Your task to perform on an android device: set default search engine in the chrome app Image 0: 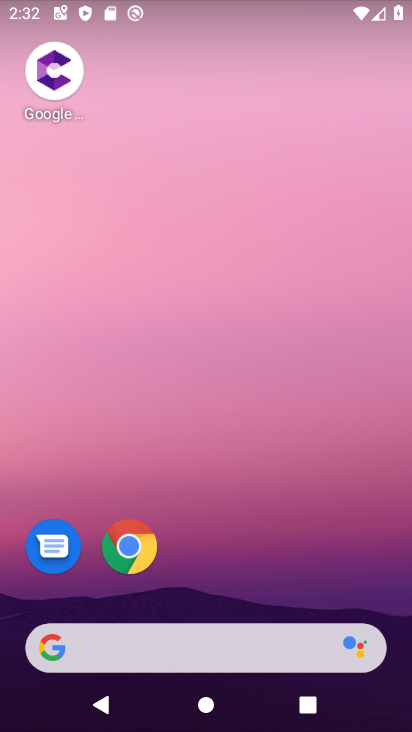
Step 0: click (129, 547)
Your task to perform on an android device: set default search engine in the chrome app Image 1: 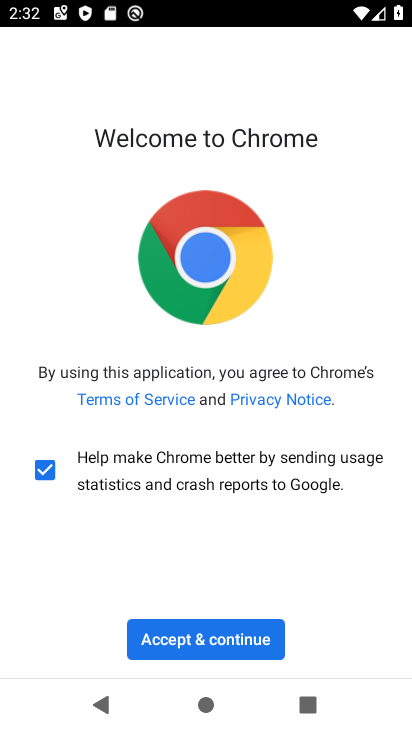
Step 1: click (192, 635)
Your task to perform on an android device: set default search engine in the chrome app Image 2: 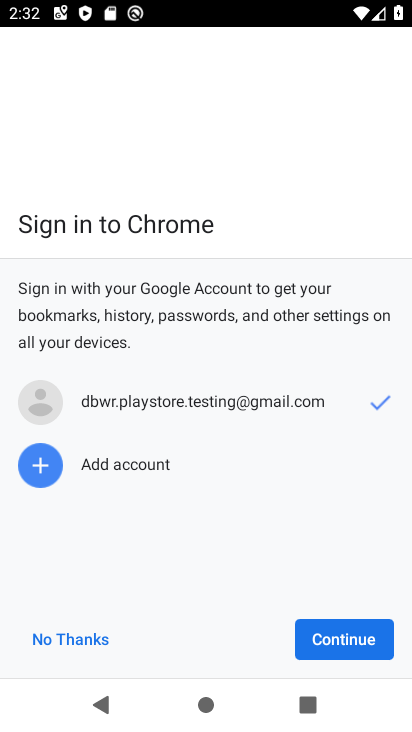
Step 2: click (331, 635)
Your task to perform on an android device: set default search engine in the chrome app Image 3: 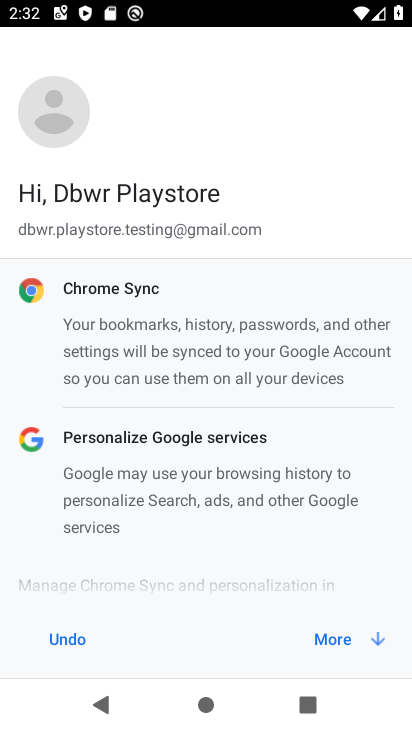
Step 3: click (331, 635)
Your task to perform on an android device: set default search engine in the chrome app Image 4: 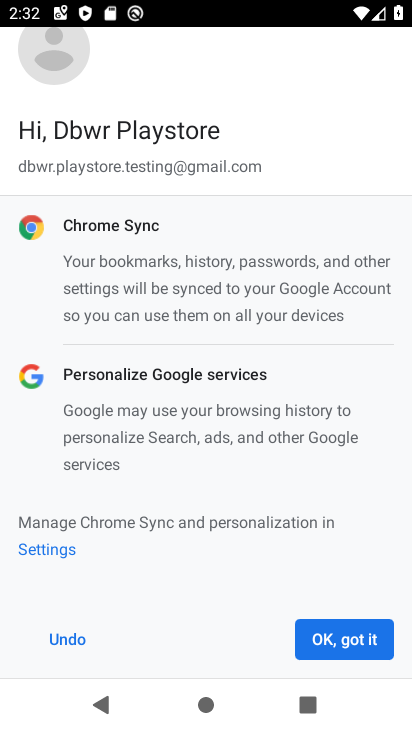
Step 4: click (331, 635)
Your task to perform on an android device: set default search engine in the chrome app Image 5: 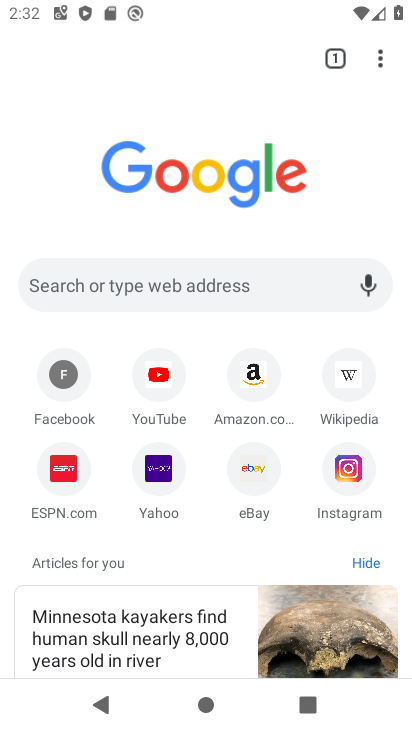
Step 5: click (381, 57)
Your task to perform on an android device: set default search engine in the chrome app Image 6: 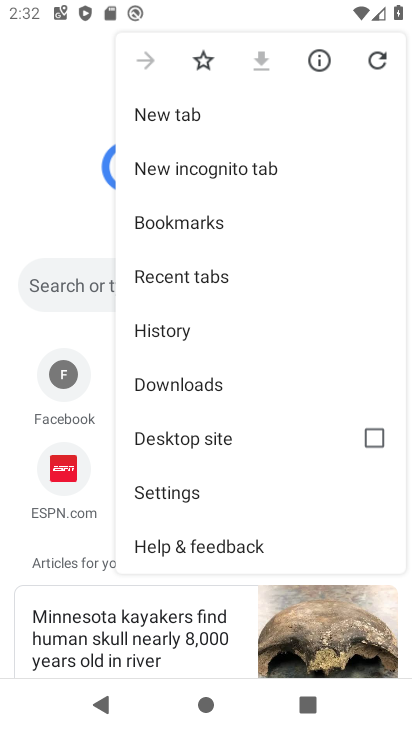
Step 6: click (172, 491)
Your task to perform on an android device: set default search engine in the chrome app Image 7: 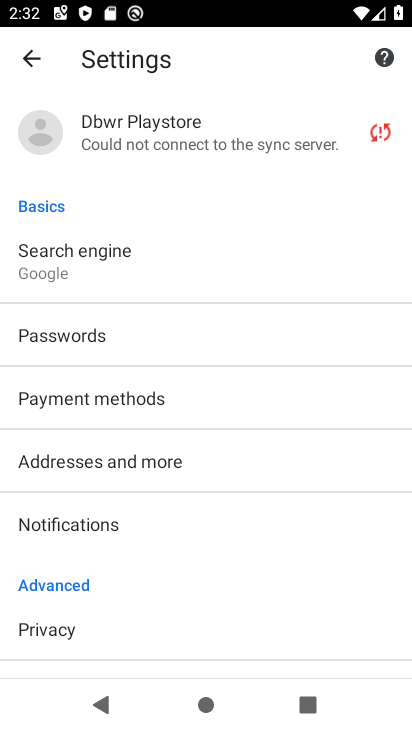
Step 7: click (77, 261)
Your task to perform on an android device: set default search engine in the chrome app Image 8: 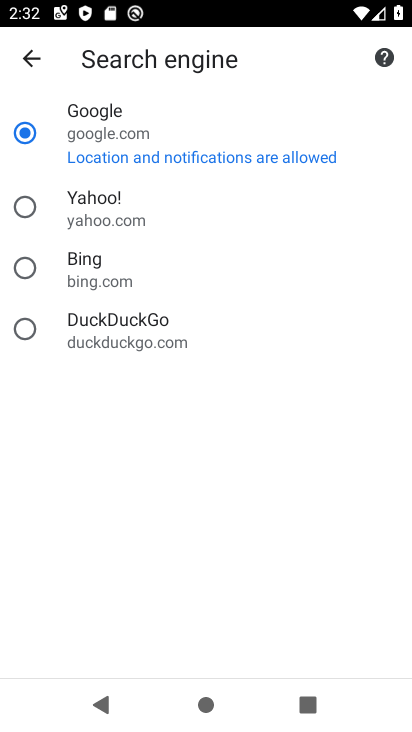
Step 8: click (77, 261)
Your task to perform on an android device: set default search engine in the chrome app Image 9: 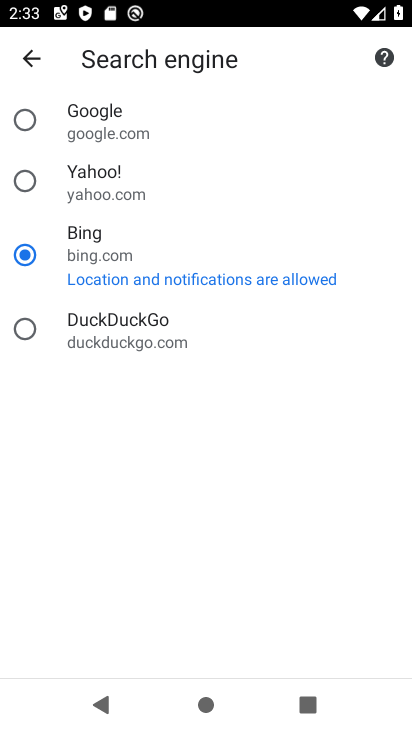
Step 9: task complete